Your task to perform on an android device: Go to Amazon Image 0: 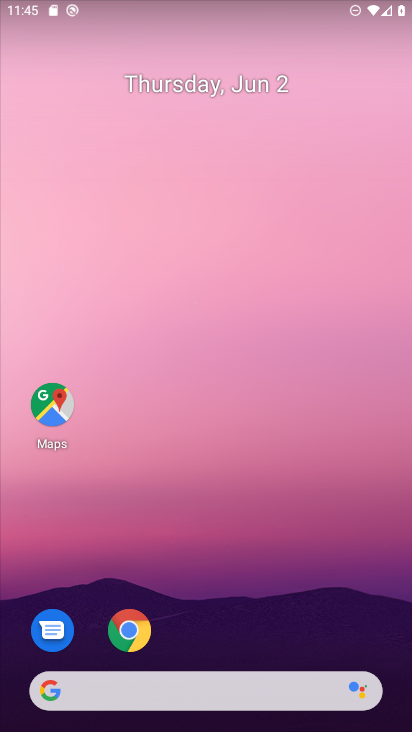
Step 0: click (128, 639)
Your task to perform on an android device: Go to Amazon Image 1: 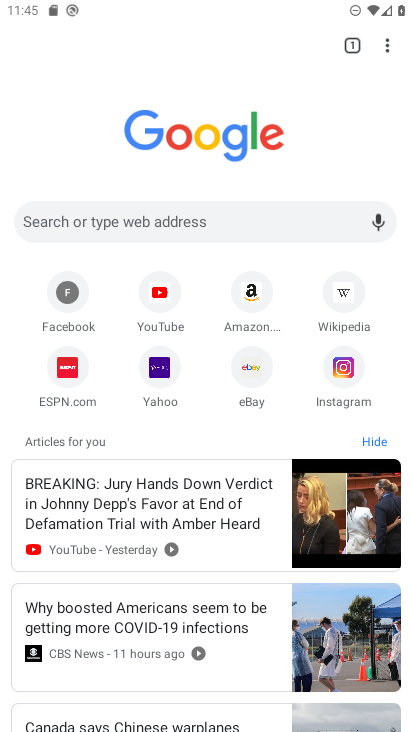
Step 1: click (237, 296)
Your task to perform on an android device: Go to Amazon Image 2: 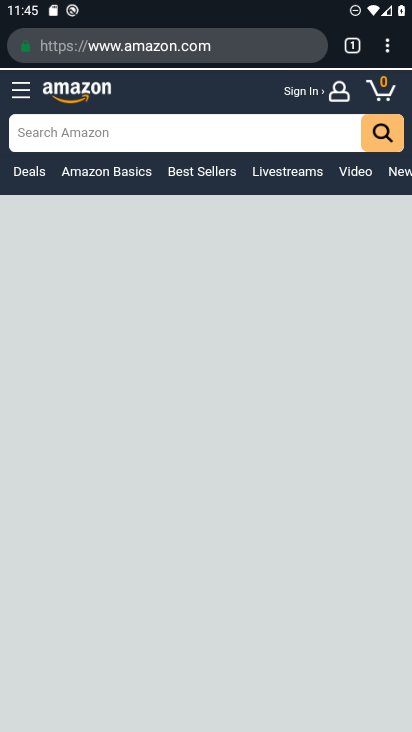
Step 2: task complete